Your task to perform on an android device: Open ESPN.com Image 0: 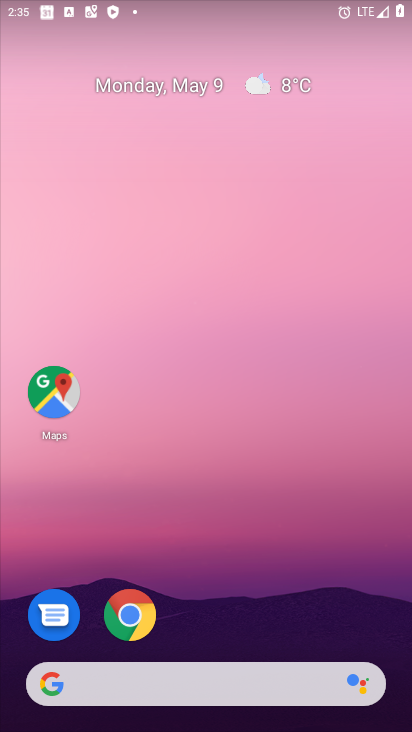
Step 0: click (126, 617)
Your task to perform on an android device: Open ESPN.com Image 1: 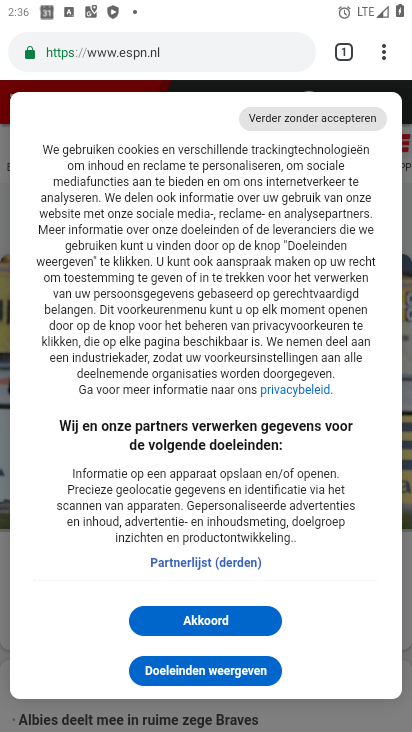
Step 1: task complete